Your task to perform on an android device: Open network settings Image 0: 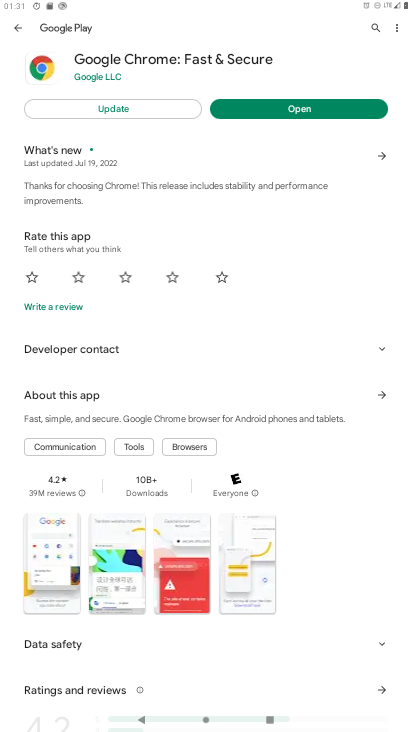
Step 0: press home button
Your task to perform on an android device: Open network settings Image 1: 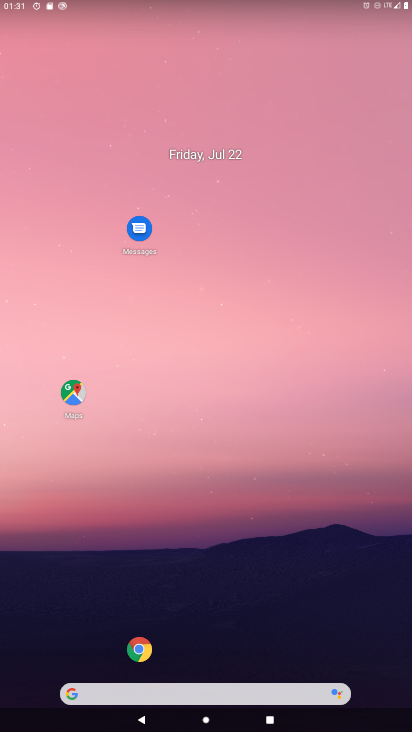
Step 1: drag from (39, 671) to (221, 141)
Your task to perform on an android device: Open network settings Image 2: 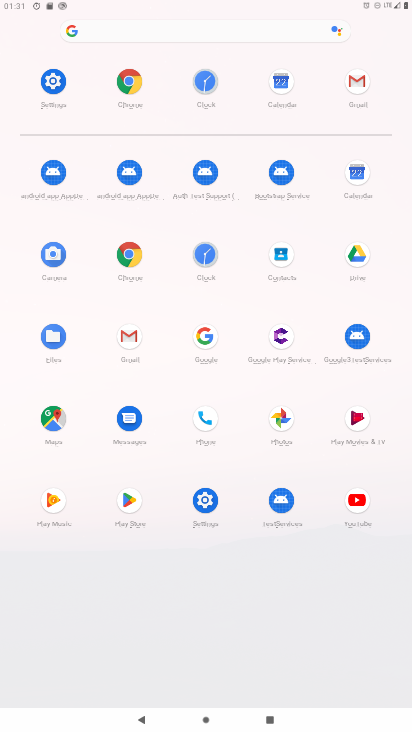
Step 2: click (199, 501)
Your task to perform on an android device: Open network settings Image 3: 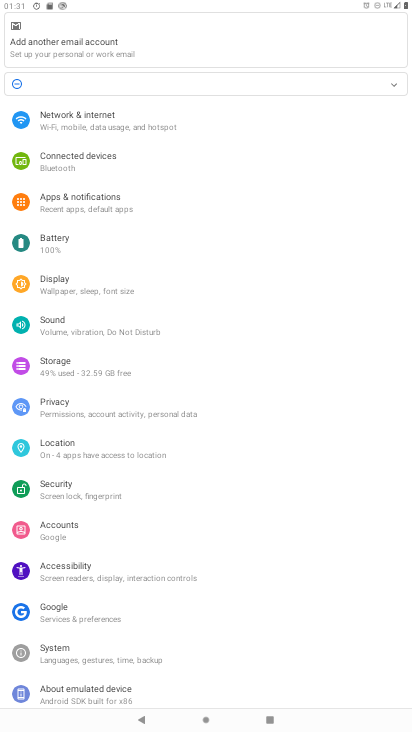
Step 3: click (86, 126)
Your task to perform on an android device: Open network settings Image 4: 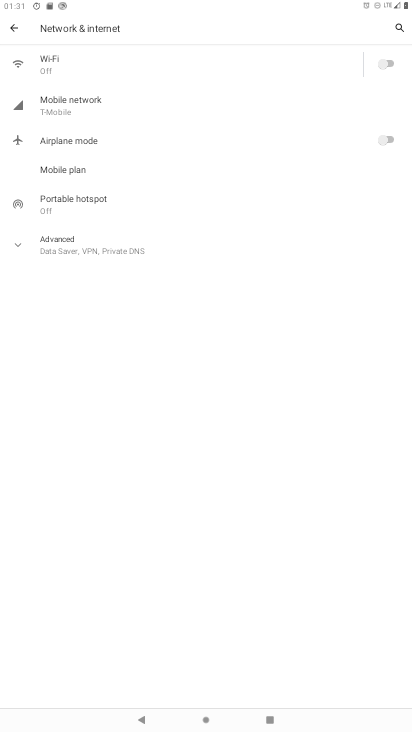
Step 4: task complete